Your task to perform on an android device: Open Google Image 0: 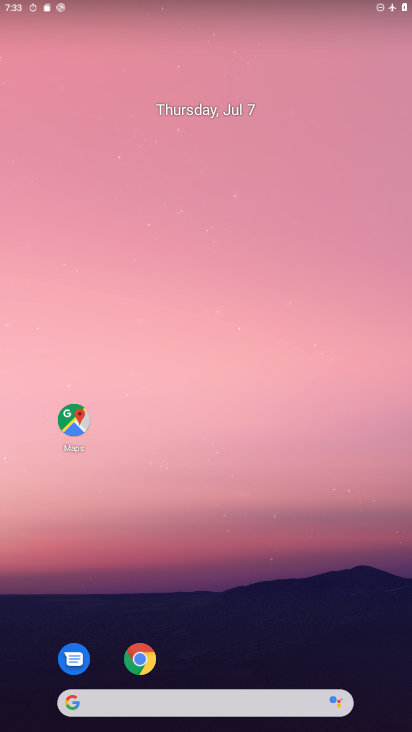
Step 0: drag from (361, 663) to (261, 4)
Your task to perform on an android device: Open Google Image 1: 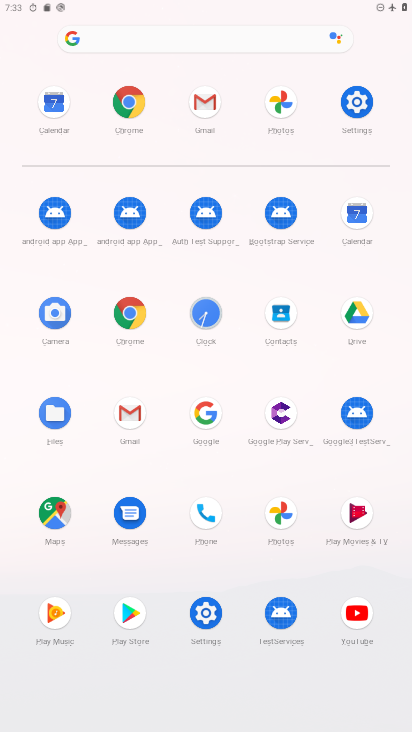
Step 1: click (210, 407)
Your task to perform on an android device: Open Google Image 2: 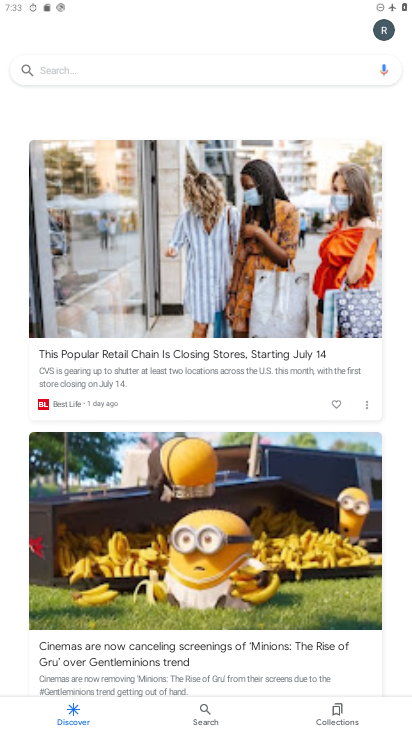
Step 2: task complete